Your task to perform on an android device: delete browsing data in the chrome app Image 0: 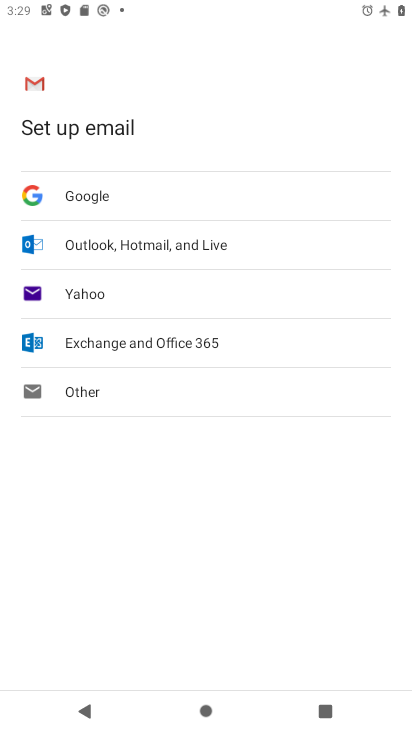
Step 0: press home button
Your task to perform on an android device: delete browsing data in the chrome app Image 1: 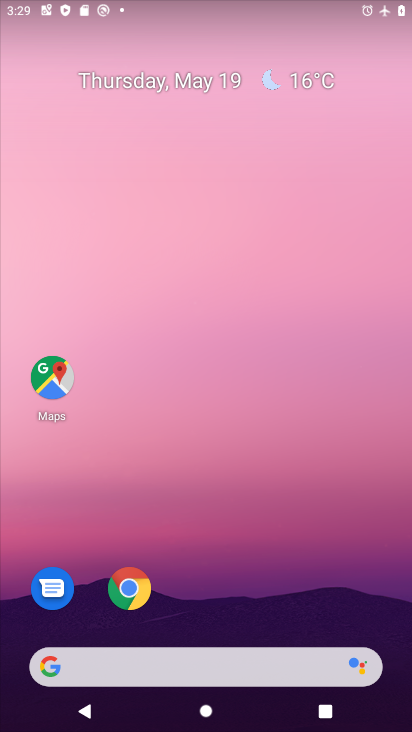
Step 1: click (130, 589)
Your task to perform on an android device: delete browsing data in the chrome app Image 2: 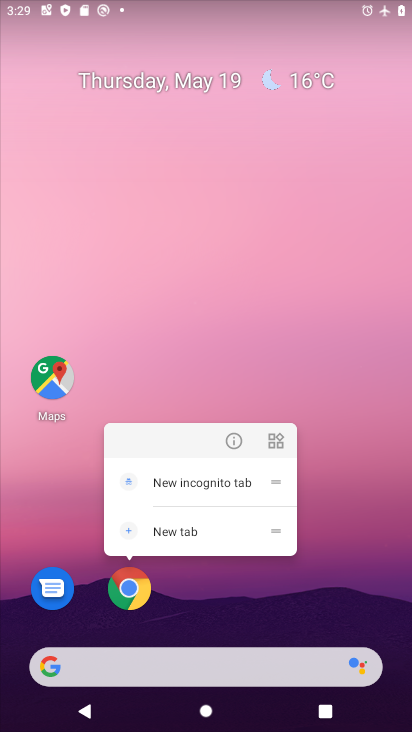
Step 2: click (124, 591)
Your task to perform on an android device: delete browsing data in the chrome app Image 3: 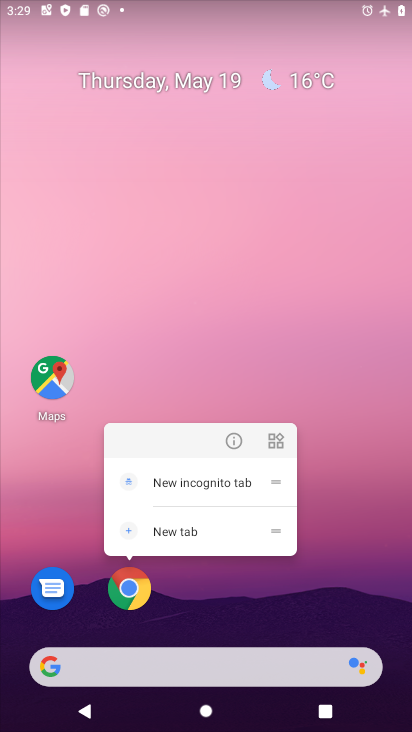
Step 3: click (125, 590)
Your task to perform on an android device: delete browsing data in the chrome app Image 4: 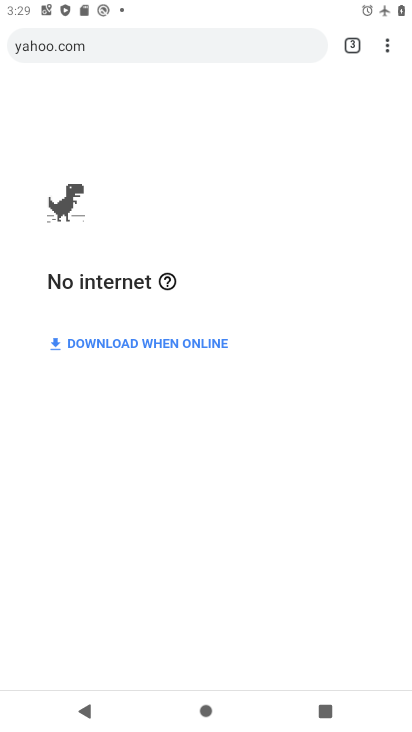
Step 4: click (386, 34)
Your task to perform on an android device: delete browsing data in the chrome app Image 5: 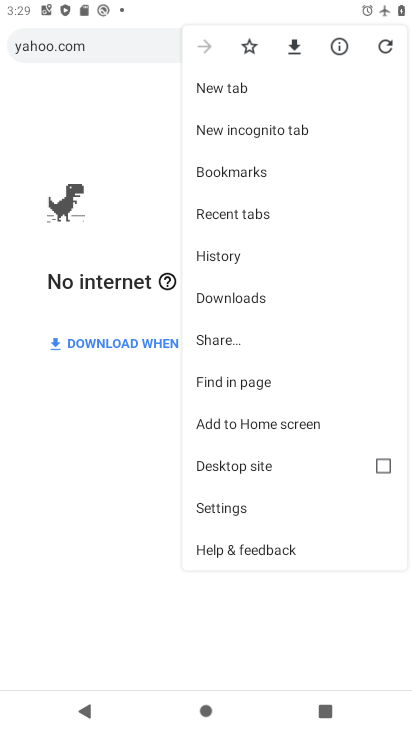
Step 5: click (228, 259)
Your task to perform on an android device: delete browsing data in the chrome app Image 6: 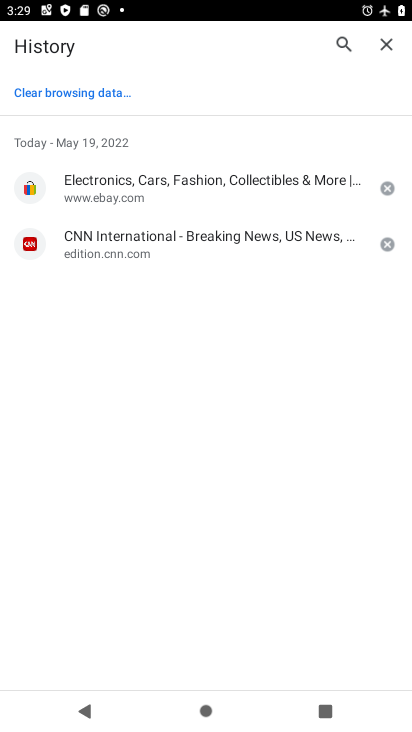
Step 6: click (70, 88)
Your task to perform on an android device: delete browsing data in the chrome app Image 7: 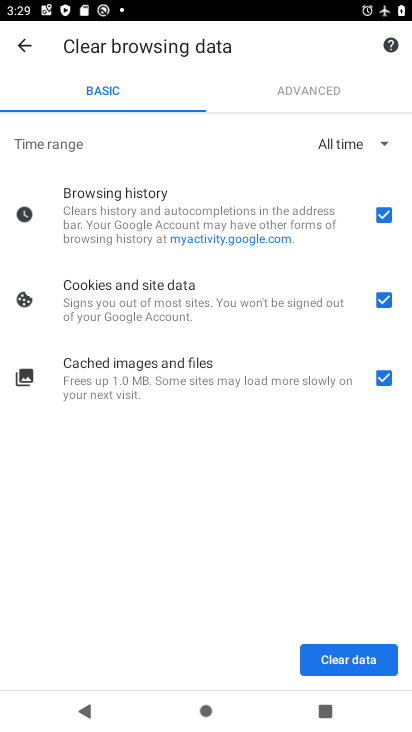
Step 7: click (369, 665)
Your task to perform on an android device: delete browsing data in the chrome app Image 8: 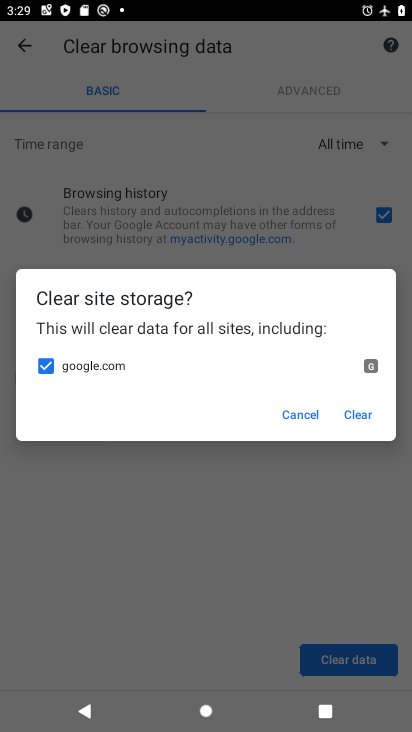
Step 8: click (357, 417)
Your task to perform on an android device: delete browsing data in the chrome app Image 9: 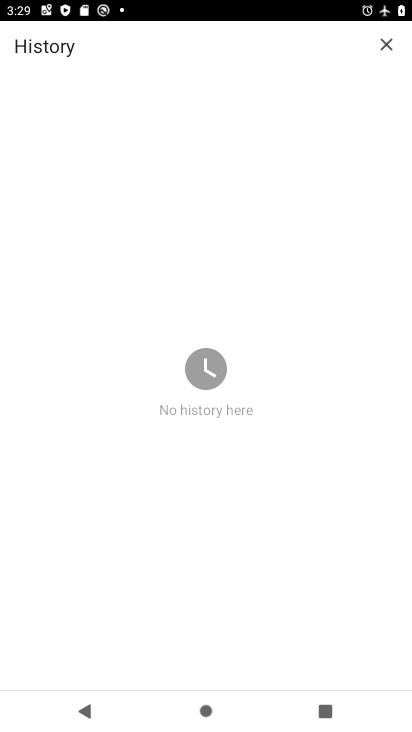
Step 9: task complete